Your task to perform on an android device: turn on data saver in the chrome app Image 0: 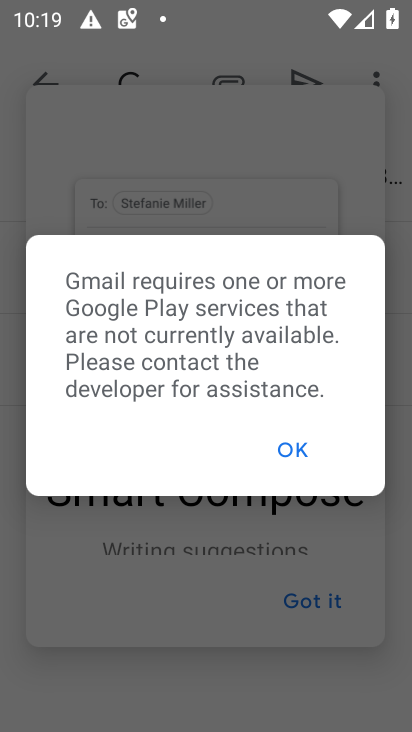
Step 0: press home button
Your task to perform on an android device: turn on data saver in the chrome app Image 1: 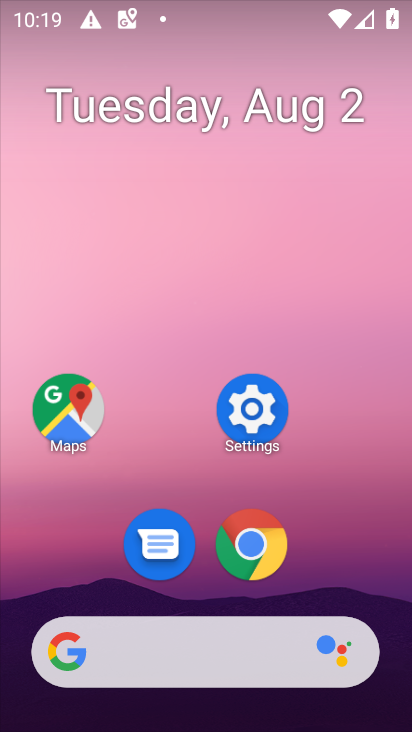
Step 1: click (259, 546)
Your task to perform on an android device: turn on data saver in the chrome app Image 2: 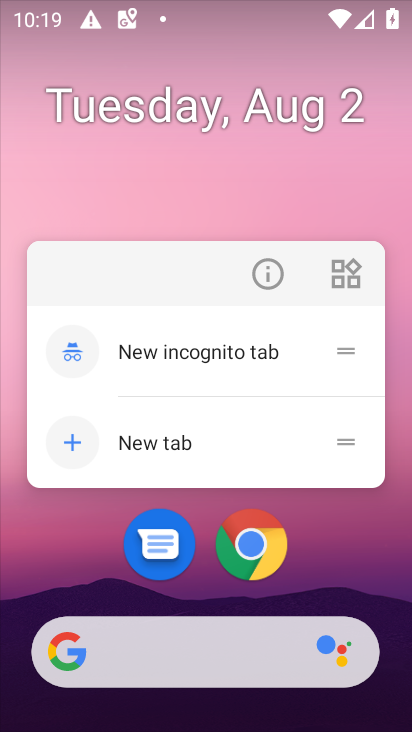
Step 2: click (259, 546)
Your task to perform on an android device: turn on data saver in the chrome app Image 3: 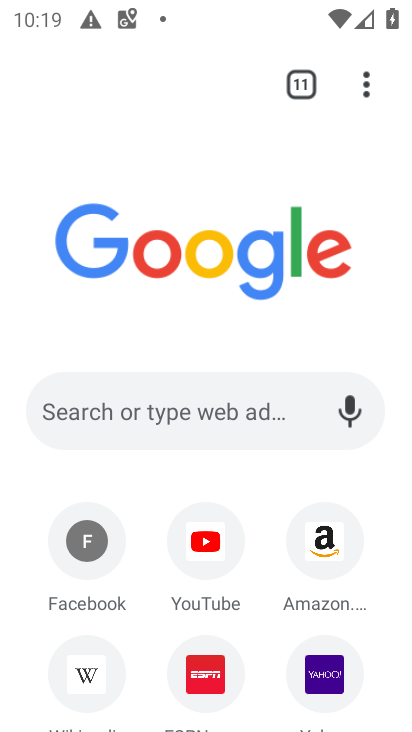
Step 3: drag from (361, 85) to (188, 600)
Your task to perform on an android device: turn on data saver in the chrome app Image 4: 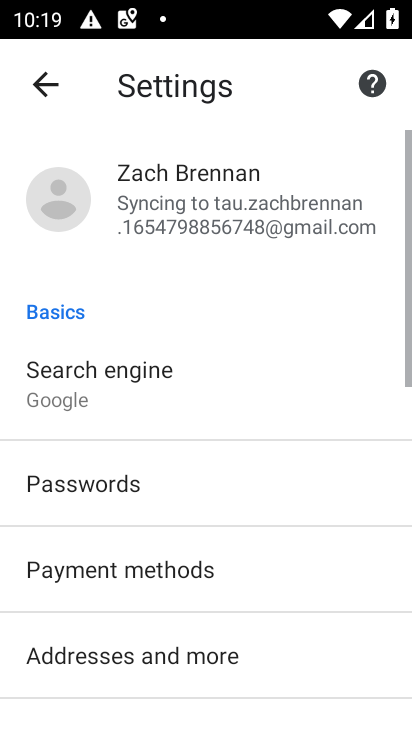
Step 4: drag from (271, 694) to (361, 233)
Your task to perform on an android device: turn on data saver in the chrome app Image 5: 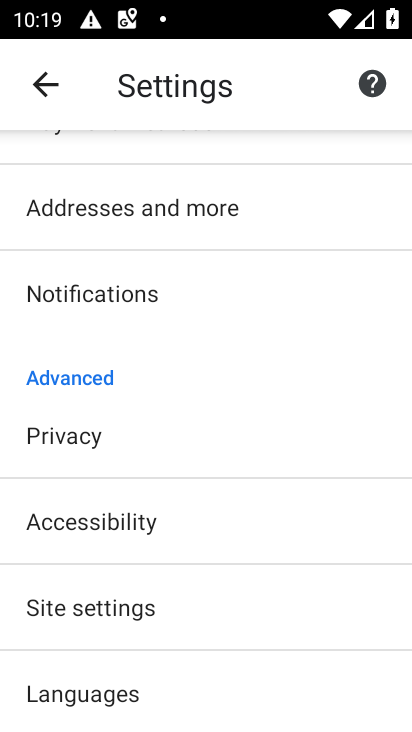
Step 5: drag from (198, 622) to (279, 300)
Your task to perform on an android device: turn on data saver in the chrome app Image 6: 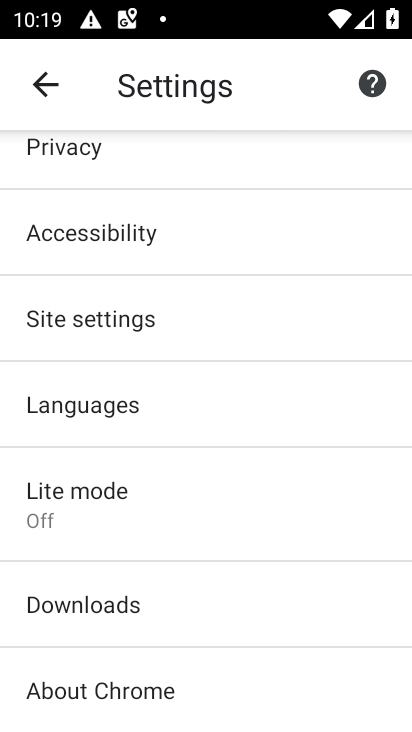
Step 6: click (117, 509)
Your task to perform on an android device: turn on data saver in the chrome app Image 7: 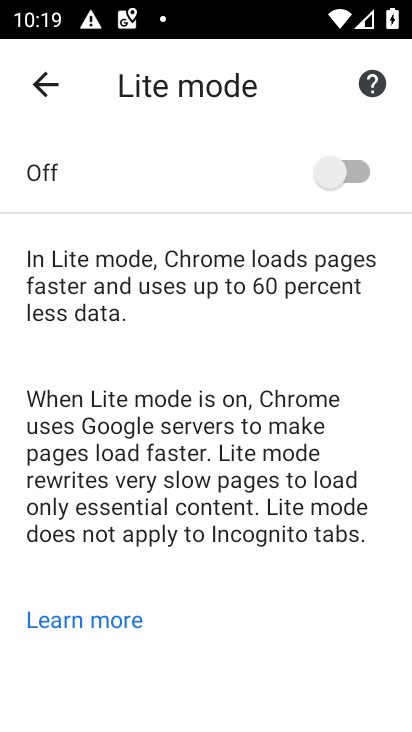
Step 7: click (361, 171)
Your task to perform on an android device: turn on data saver in the chrome app Image 8: 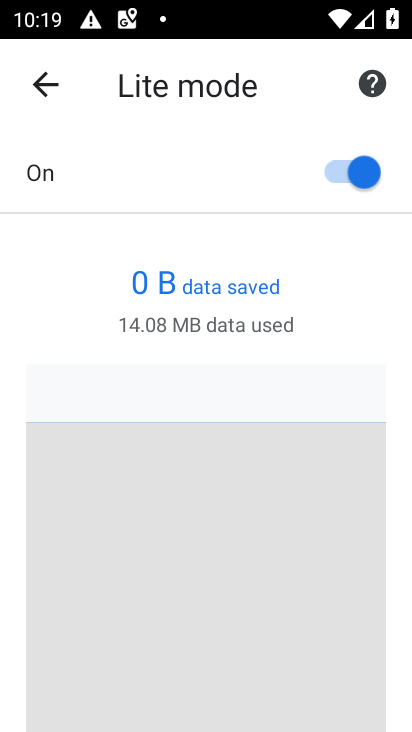
Step 8: task complete